Your task to perform on an android device: turn on airplane mode Image 0: 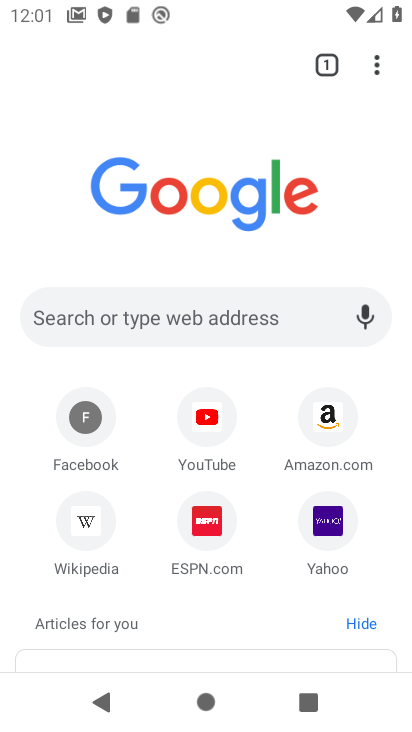
Step 0: press home button
Your task to perform on an android device: turn on airplane mode Image 1: 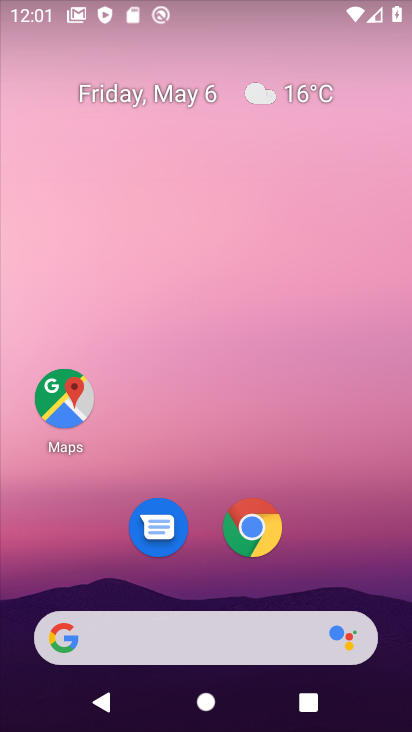
Step 1: drag from (306, 500) to (88, 66)
Your task to perform on an android device: turn on airplane mode Image 2: 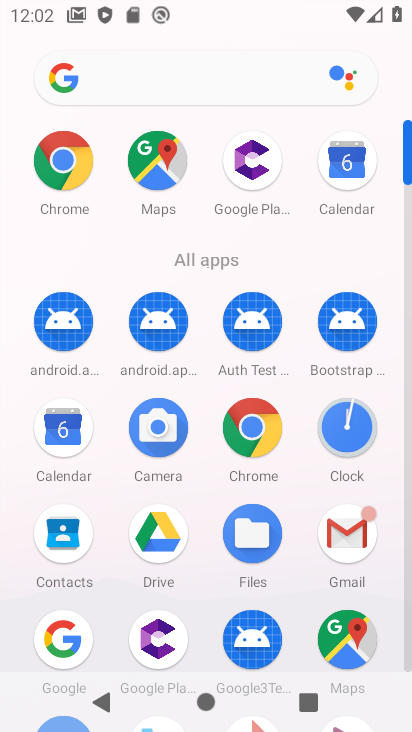
Step 2: drag from (210, 572) to (203, 237)
Your task to perform on an android device: turn on airplane mode Image 3: 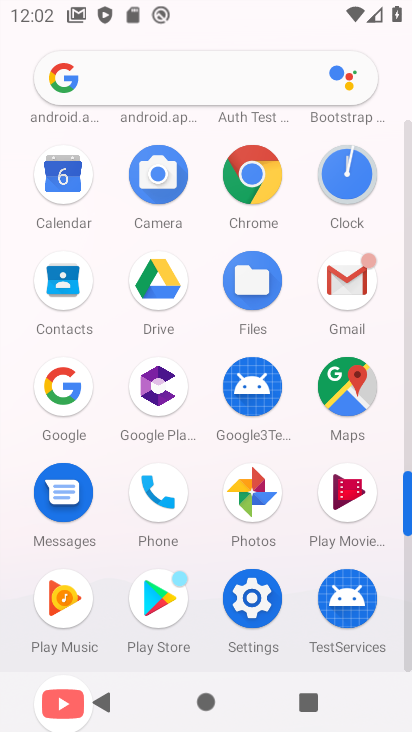
Step 3: click (248, 615)
Your task to perform on an android device: turn on airplane mode Image 4: 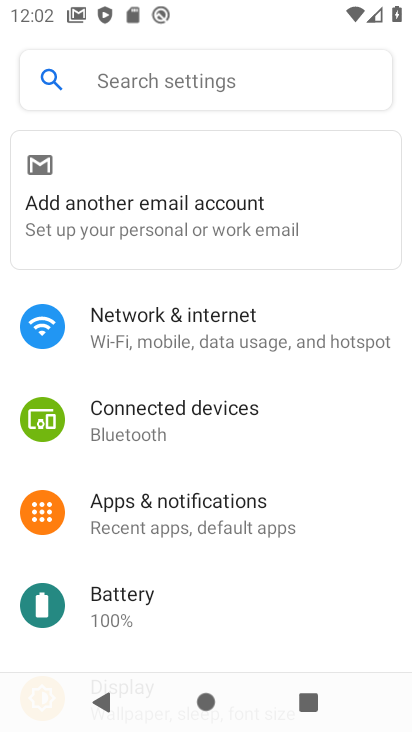
Step 4: drag from (128, 597) to (125, 335)
Your task to perform on an android device: turn on airplane mode Image 5: 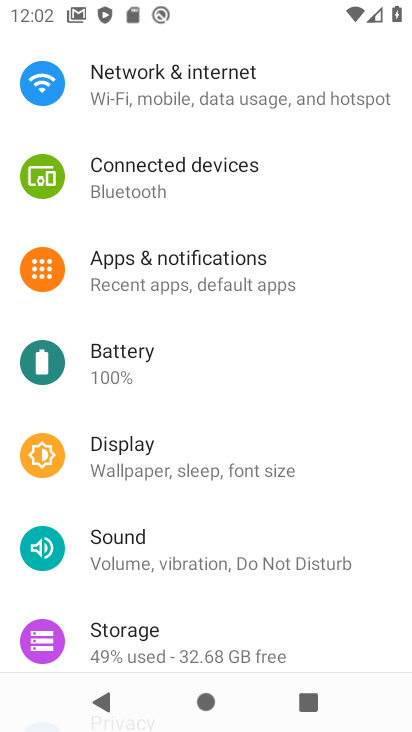
Step 5: drag from (173, 597) to (150, 218)
Your task to perform on an android device: turn on airplane mode Image 6: 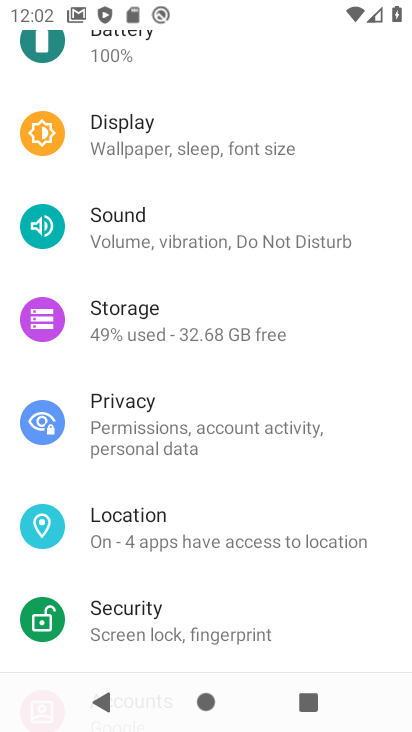
Step 6: drag from (176, 282) to (152, 603)
Your task to perform on an android device: turn on airplane mode Image 7: 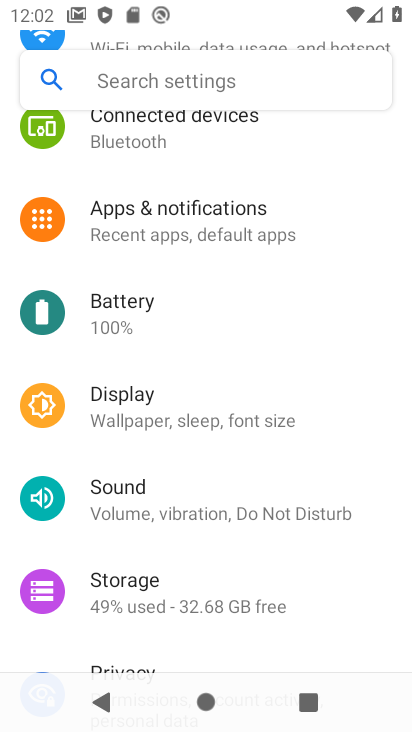
Step 7: drag from (131, 166) to (77, 416)
Your task to perform on an android device: turn on airplane mode Image 8: 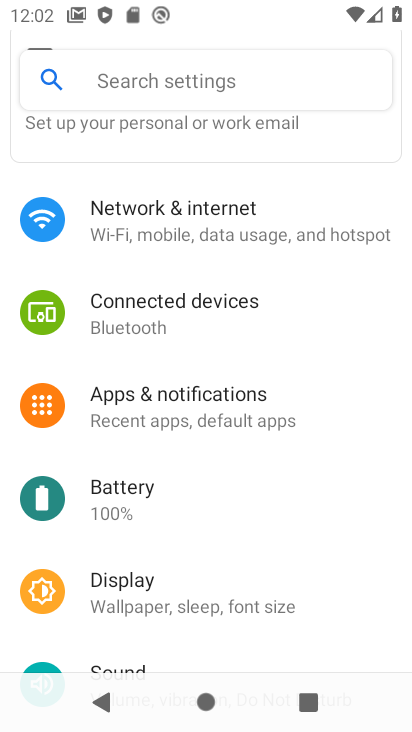
Step 8: click (129, 230)
Your task to perform on an android device: turn on airplane mode Image 9: 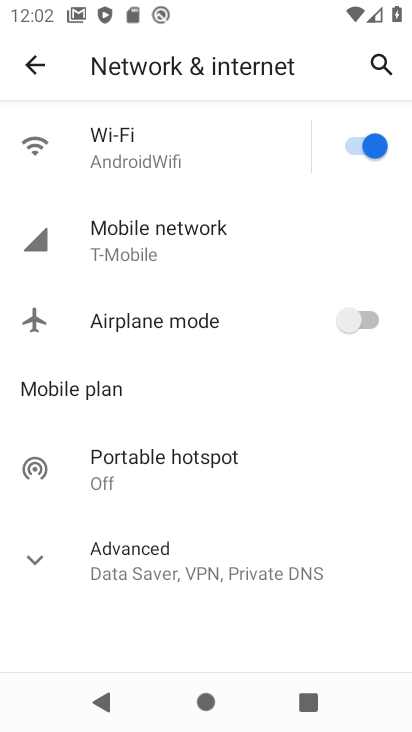
Step 9: click (361, 320)
Your task to perform on an android device: turn on airplane mode Image 10: 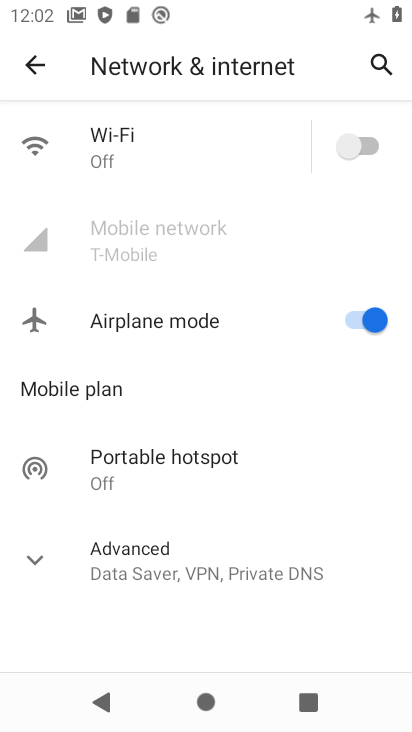
Step 10: task complete